Your task to perform on an android device: star an email in the gmail app Image 0: 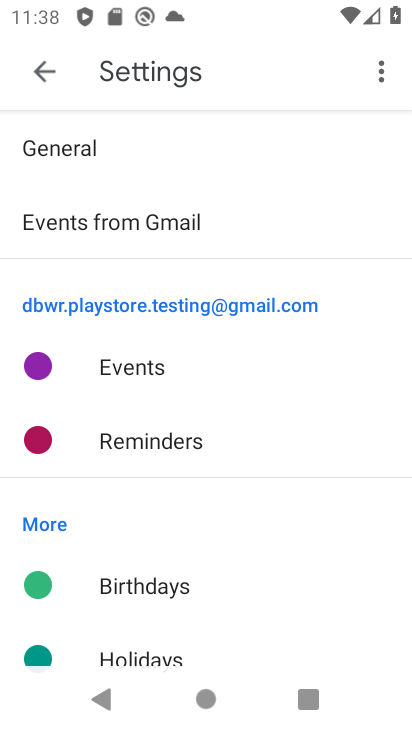
Step 0: press home button
Your task to perform on an android device: star an email in the gmail app Image 1: 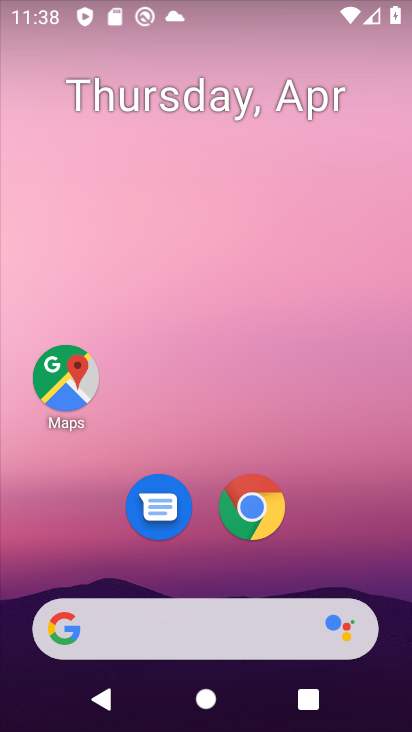
Step 1: drag from (197, 709) to (197, 102)
Your task to perform on an android device: star an email in the gmail app Image 2: 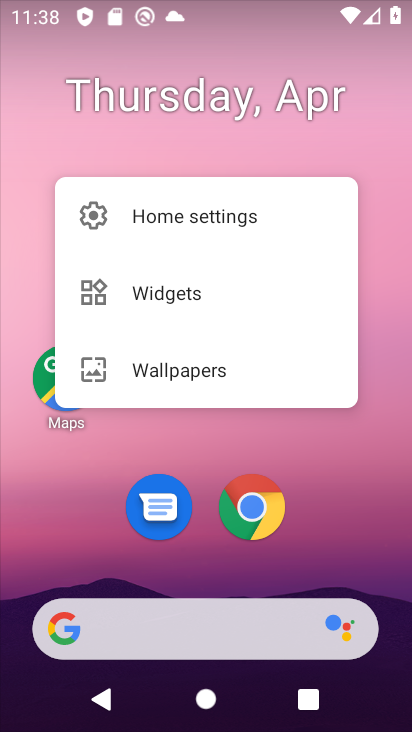
Step 2: click (180, 432)
Your task to perform on an android device: star an email in the gmail app Image 3: 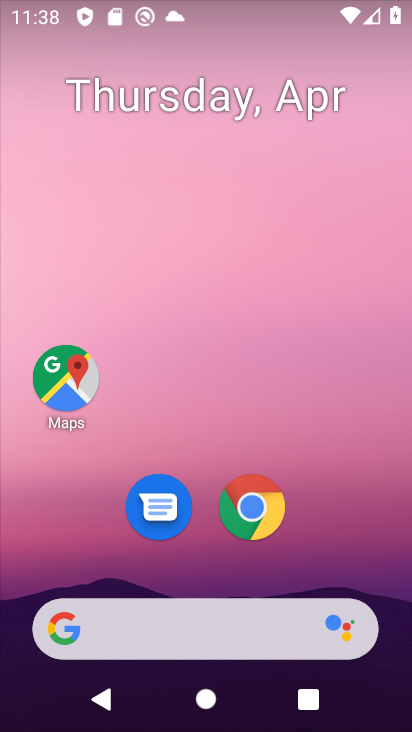
Step 3: drag from (233, 724) to (216, 217)
Your task to perform on an android device: star an email in the gmail app Image 4: 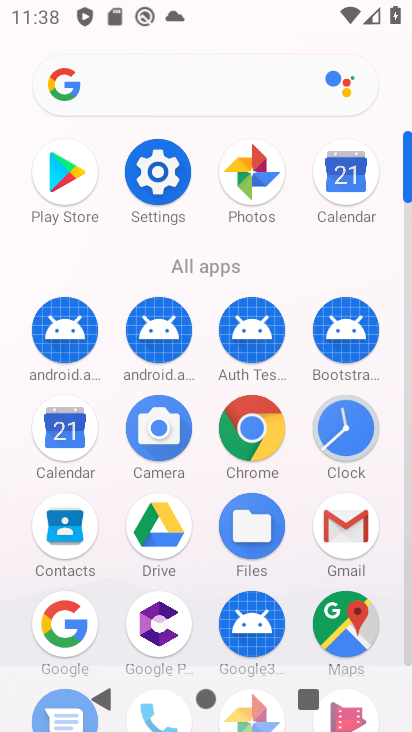
Step 4: click (346, 523)
Your task to perform on an android device: star an email in the gmail app Image 5: 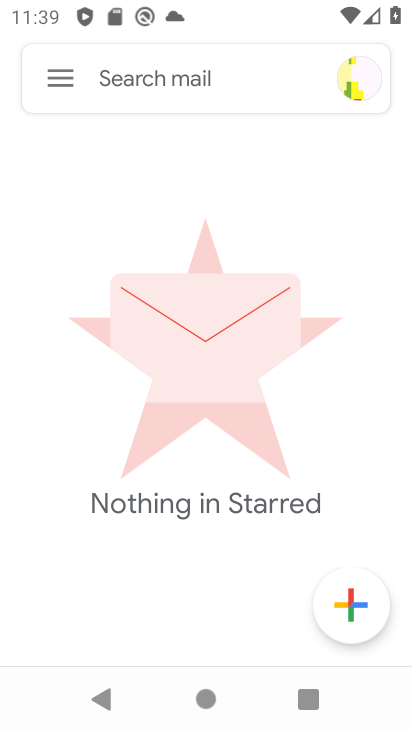
Step 5: click (58, 76)
Your task to perform on an android device: star an email in the gmail app Image 6: 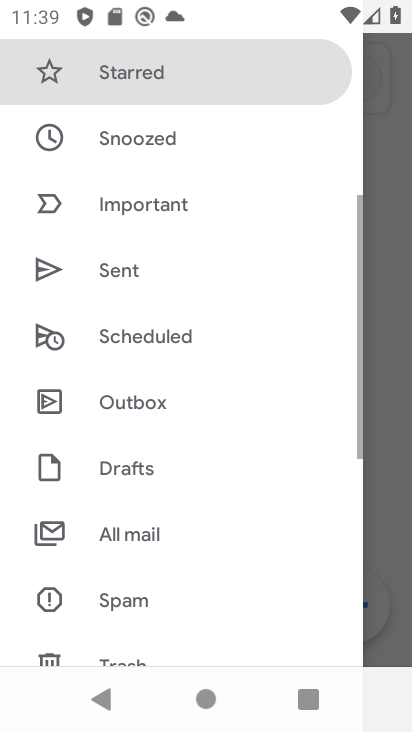
Step 6: drag from (141, 108) to (141, 542)
Your task to perform on an android device: star an email in the gmail app Image 7: 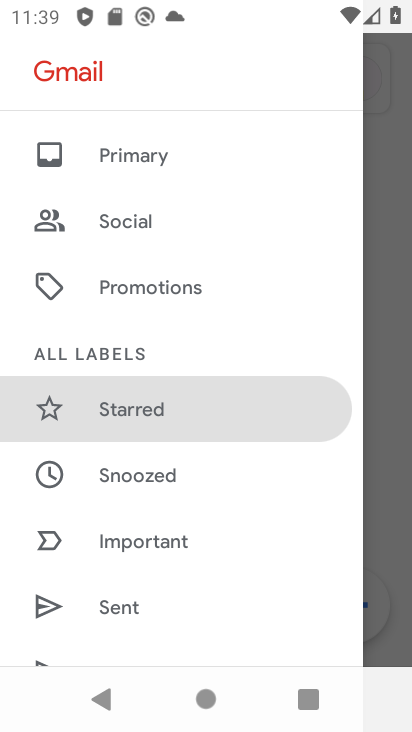
Step 7: drag from (162, 162) to (164, 585)
Your task to perform on an android device: star an email in the gmail app Image 8: 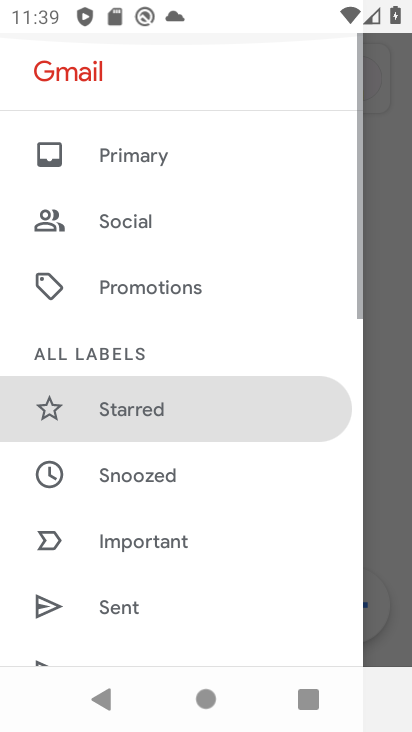
Step 8: click (123, 150)
Your task to perform on an android device: star an email in the gmail app Image 9: 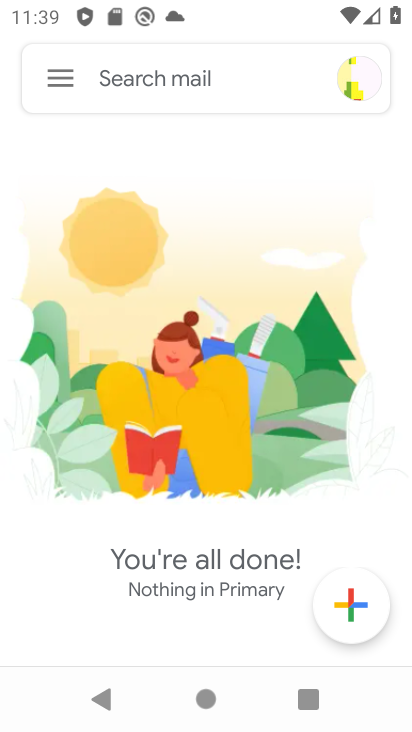
Step 9: task complete